Your task to perform on an android device: change text size in settings app Image 0: 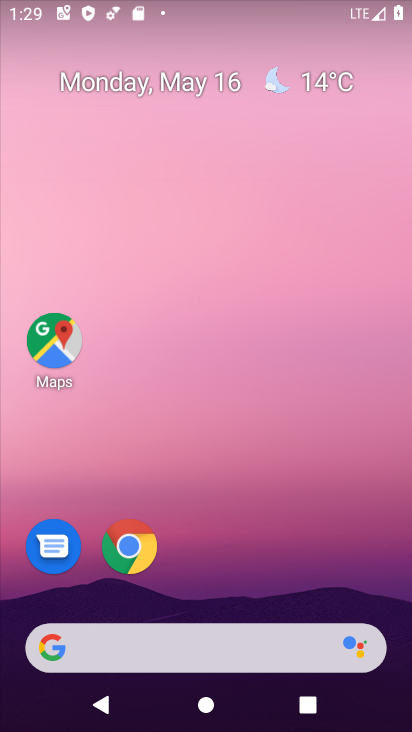
Step 0: drag from (240, 679) to (222, 134)
Your task to perform on an android device: change text size in settings app Image 1: 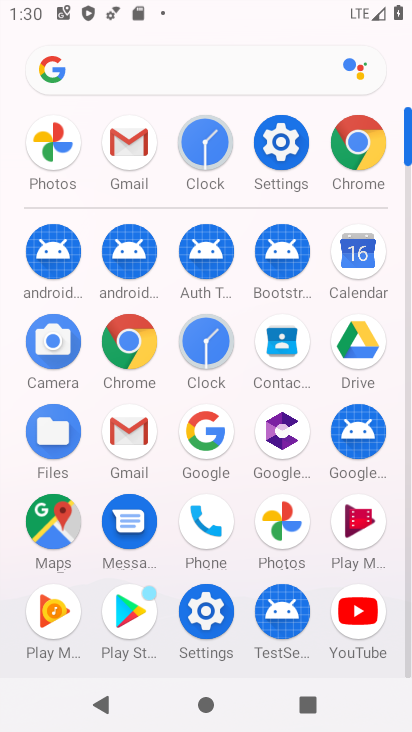
Step 1: click (283, 136)
Your task to perform on an android device: change text size in settings app Image 2: 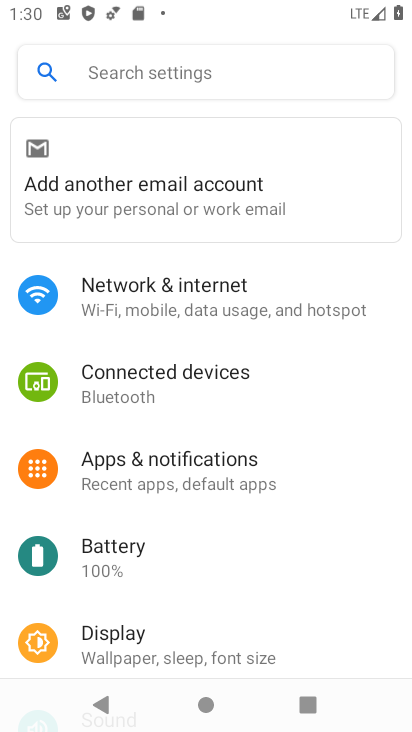
Step 2: click (135, 84)
Your task to perform on an android device: change text size in settings app Image 3: 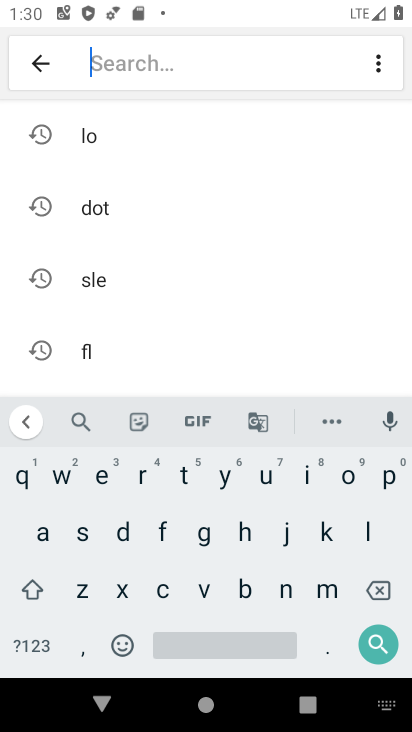
Step 3: click (81, 545)
Your task to perform on an android device: change text size in settings app Image 4: 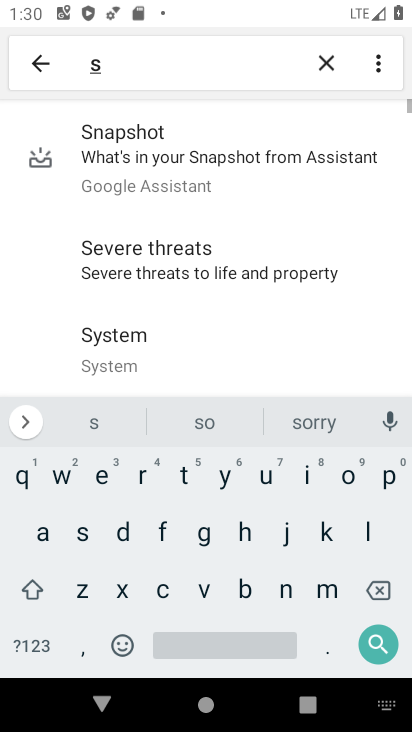
Step 4: click (311, 477)
Your task to perform on an android device: change text size in settings app Image 5: 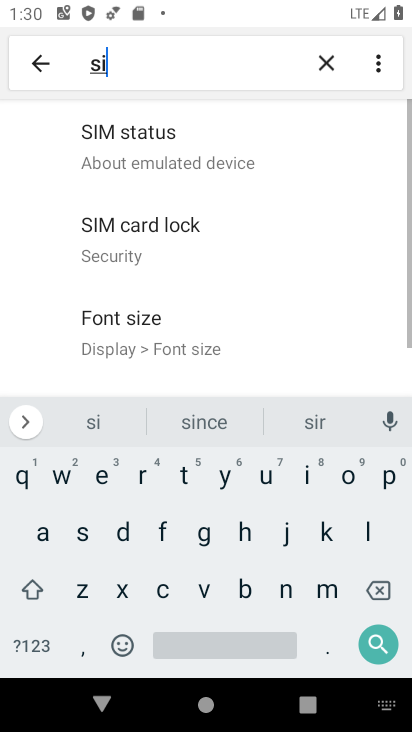
Step 5: click (83, 594)
Your task to perform on an android device: change text size in settings app Image 6: 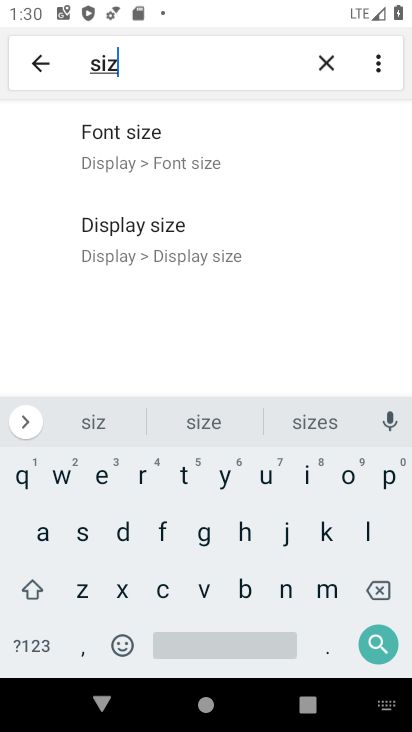
Step 6: click (148, 164)
Your task to perform on an android device: change text size in settings app Image 7: 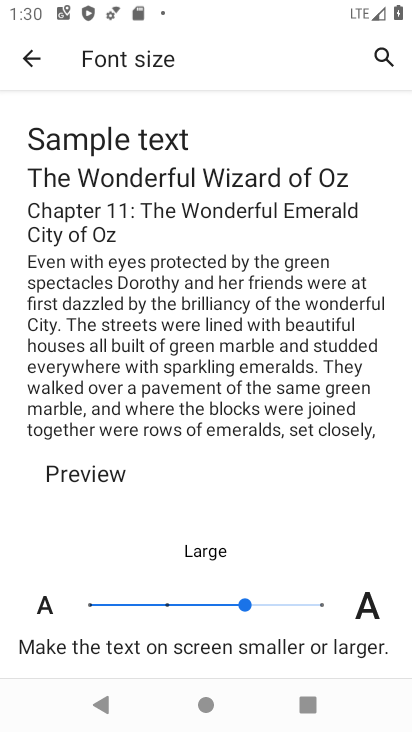
Step 7: click (155, 582)
Your task to perform on an android device: change text size in settings app Image 8: 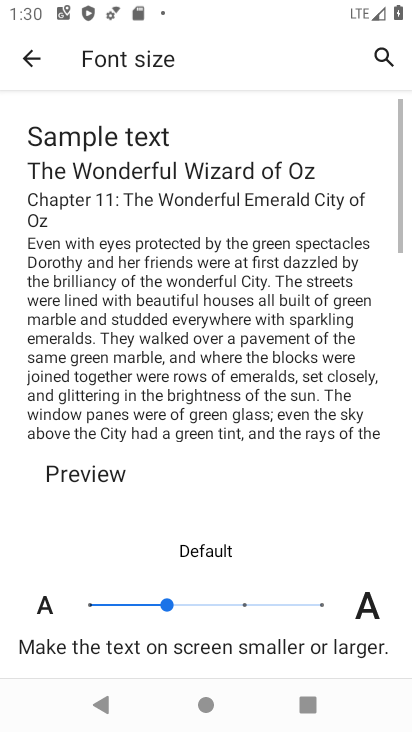
Step 8: click (169, 600)
Your task to perform on an android device: change text size in settings app Image 9: 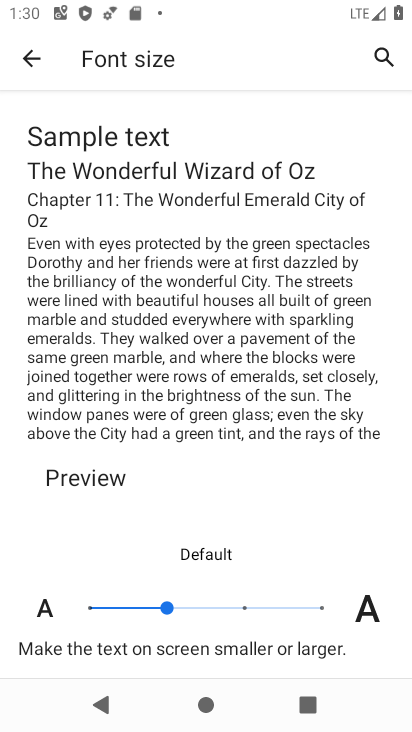
Step 9: task complete